Your task to perform on an android device: Open the web browser Image 0: 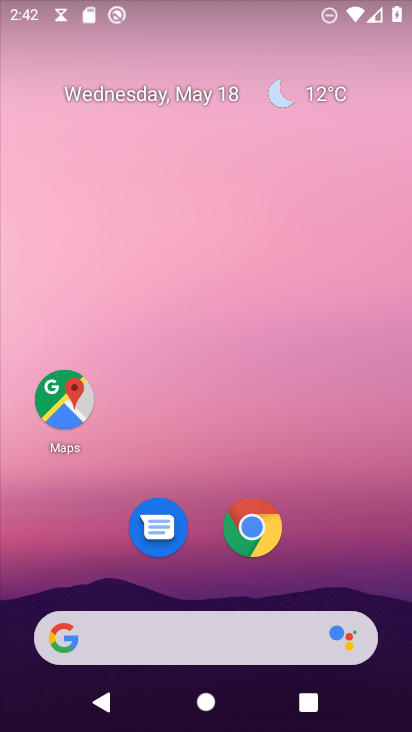
Step 0: click (250, 535)
Your task to perform on an android device: Open the web browser Image 1: 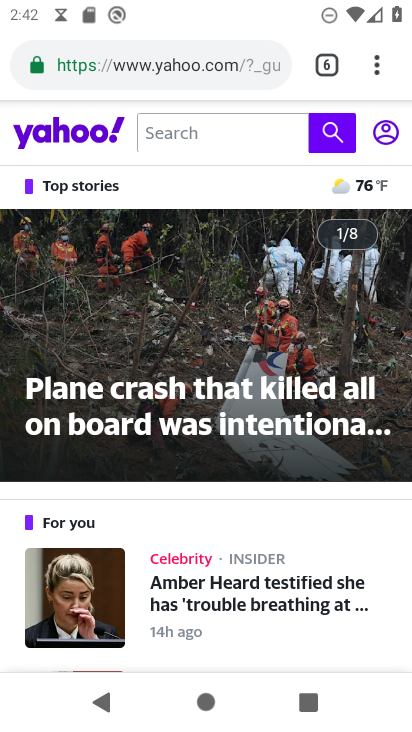
Step 1: task complete